Your task to perform on an android device: Open the calendar app, open the side menu, and click the "Day" option Image 0: 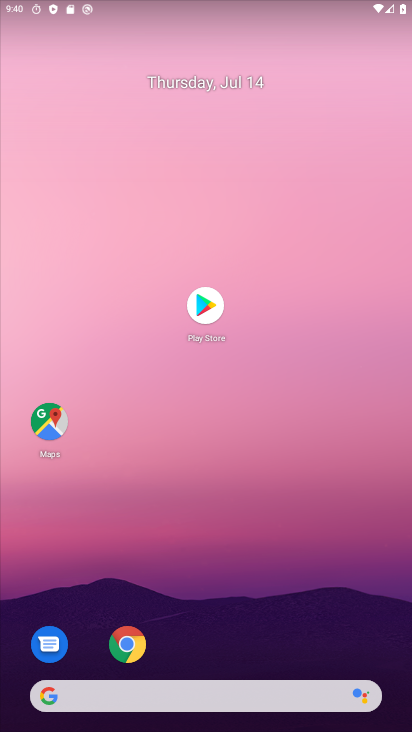
Step 0: drag from (179, 537) to (198, 157)
Your task to perform on an android device: Open the calendar app, open the side menu, and click the "Day" option Image 1: 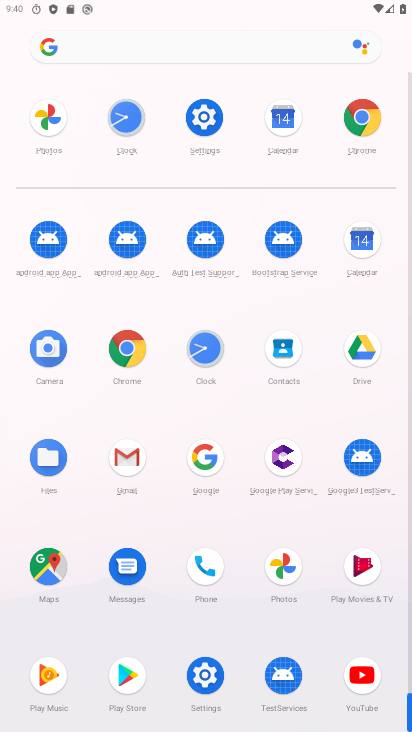
Step 1: click (364, 237)
Your task to perform on an android device: Open the calendar app, open the side menu, and click the "Day" option Image 2: 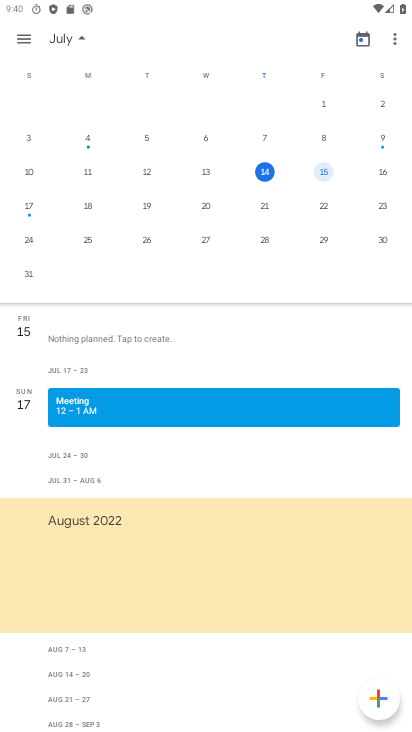
Step 2: click (26, 36)
Your task to perform on an android device: Open the calendar app, open the side menu, and click the "Day" option Image 3: 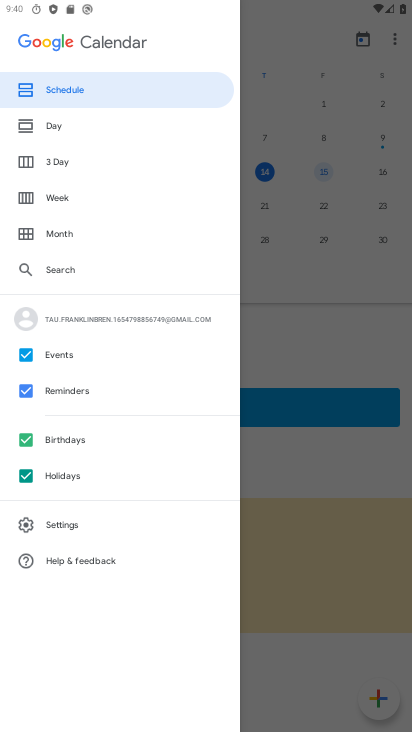
Step 3: click (79, 117)
Your task to perform on an android device: Open the calendar app, open the side menu, and click the "Day" option Image 4: 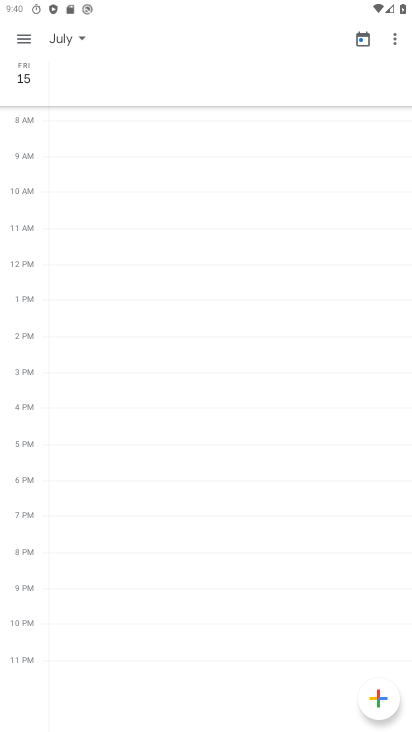
Step 4: click (27, 33)
Your task to perform on an android device: Open the calendar app, open the side menu, and click the "Day" option Image 5: 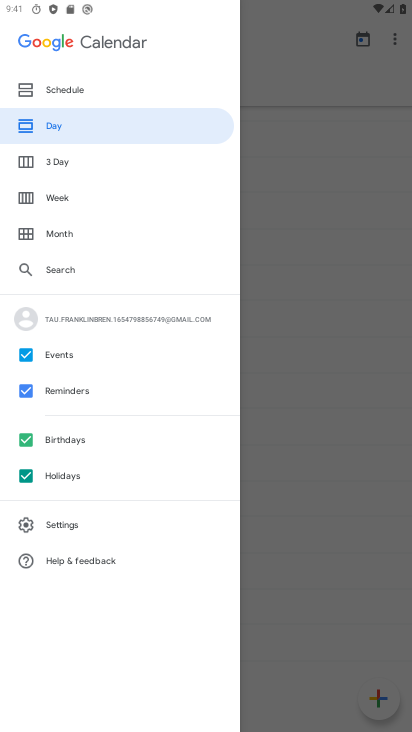
Step 5: task complete